Your task to perform on an android device: install app "Grab" Image 0: 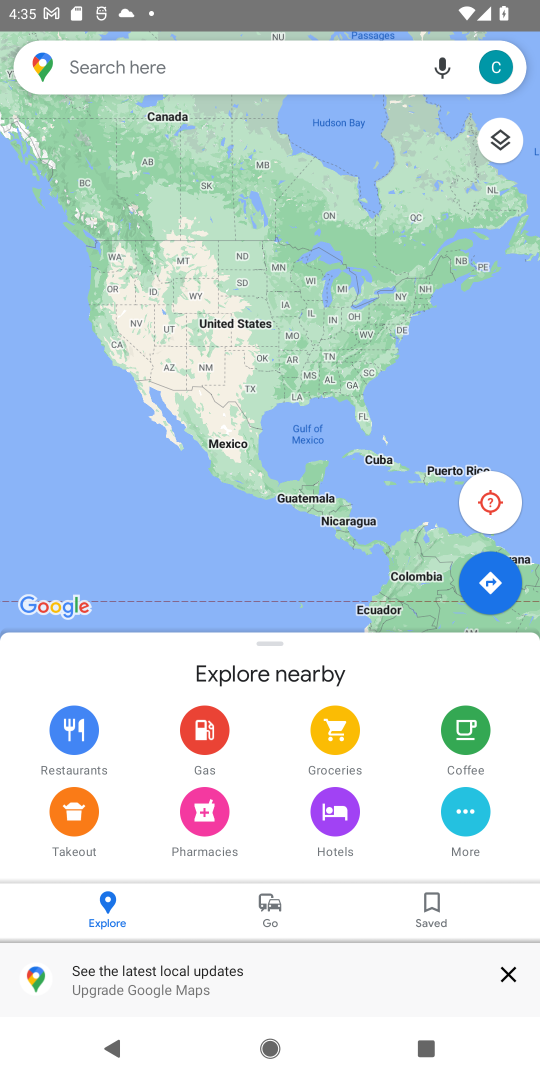
Step 0: press home button
Your task to perform on an android device: install app "Grab" Image 1: 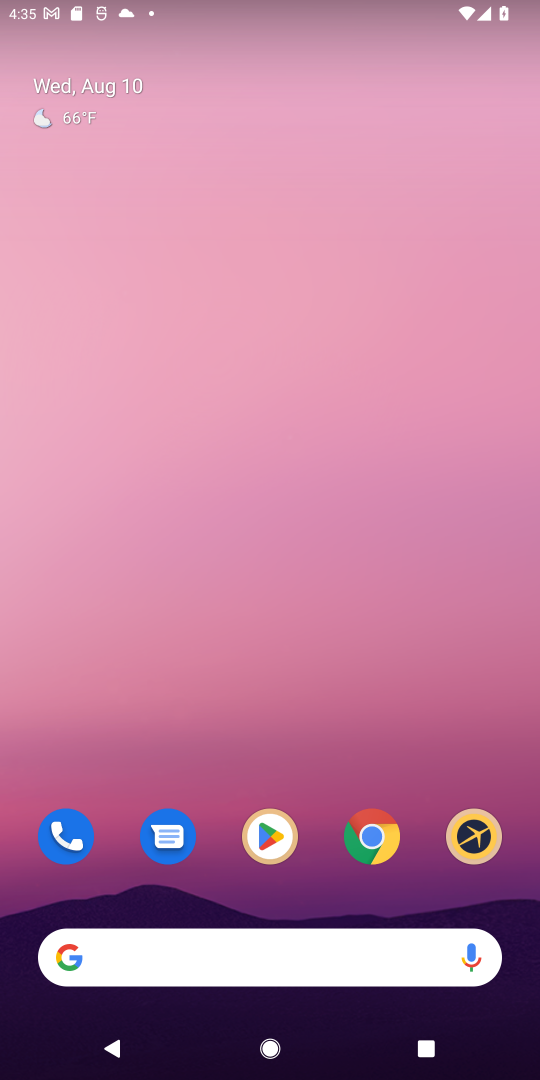
Step 1: drag from (190, 882) to (248, 237)
Your task to perform on an android device: install app "Grab" Image 2: 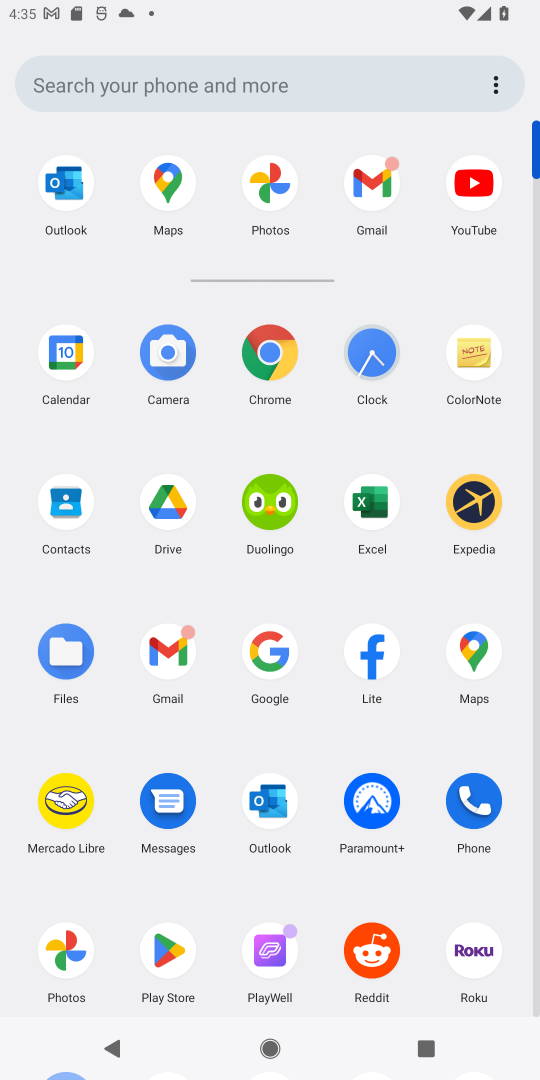
Step 2: click (155, 940)
Your task to perform on an android device: install app "Grab" Image 3: 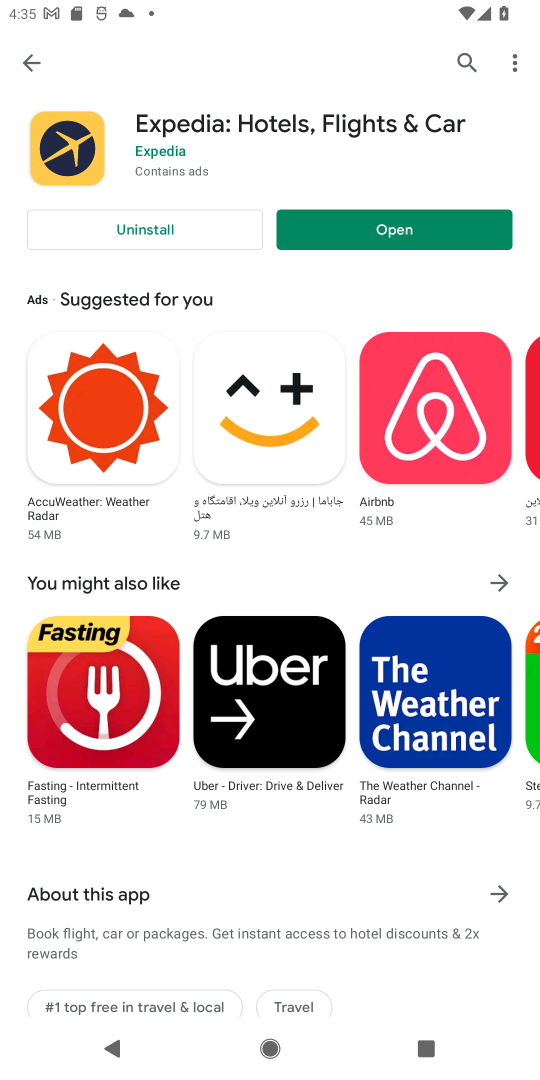
Step 3: click (36, 70)
Your task to perform on an android device: install app "Grab" Image 4: 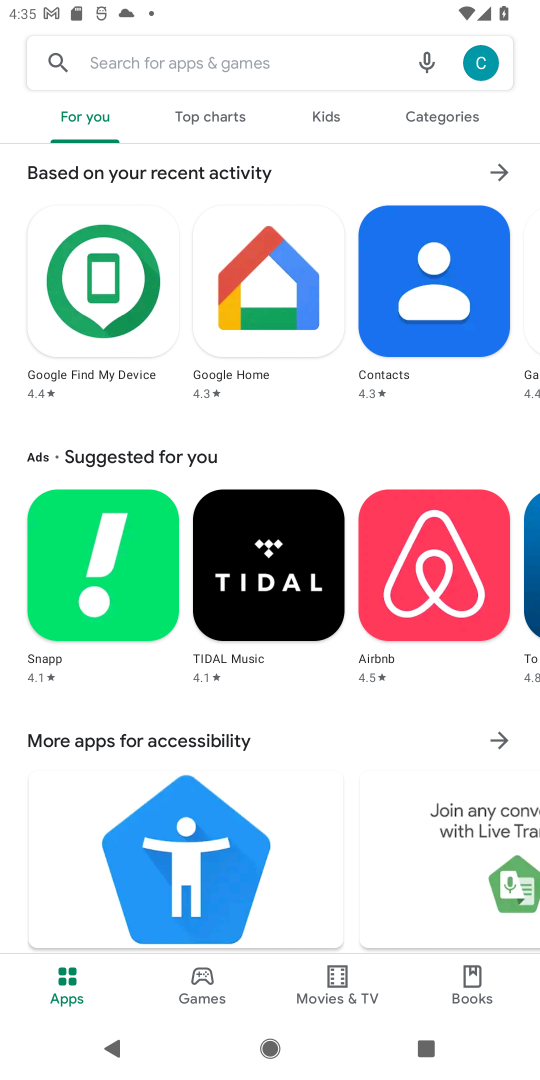
Step 4: click (218, 50)
Your task to perform on an android device: install app "Grab" Image 5: 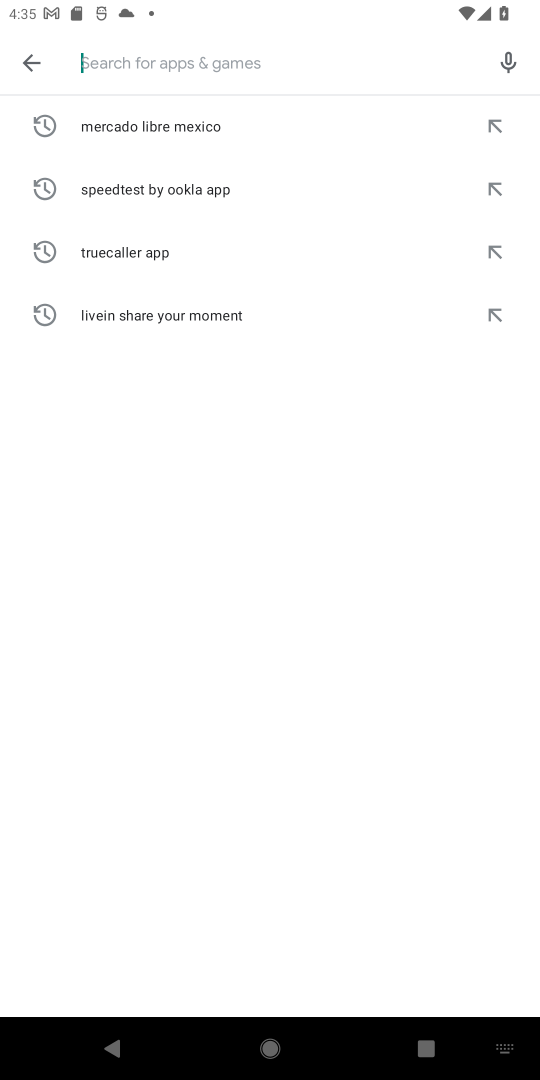
Step 5: type "grab "
Your task to perform on an android device: install app "Grab" Image 6: 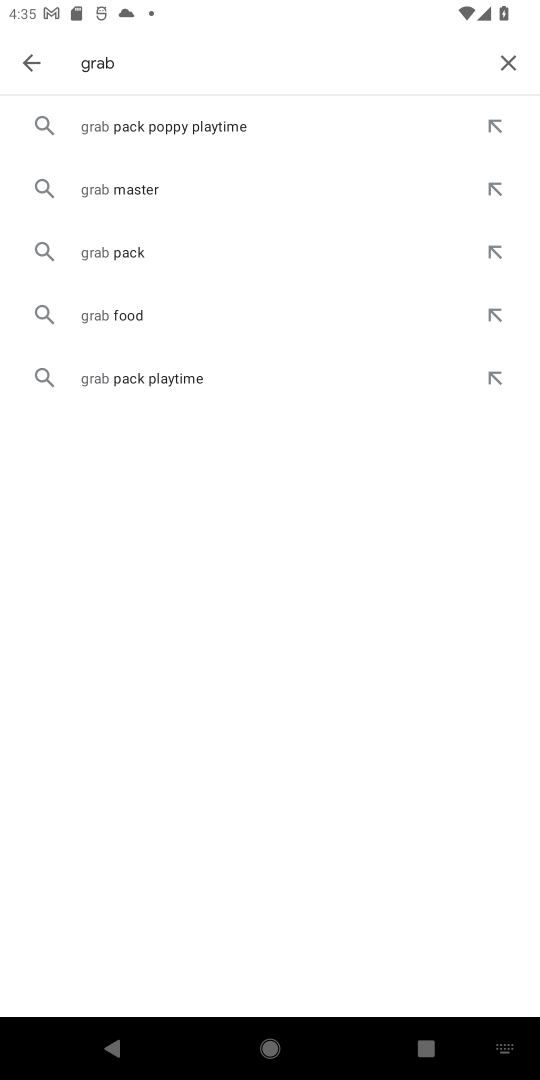
Step 6: click (163, 139)
Your task to perform on an android device: install app "Grab" Image 7: 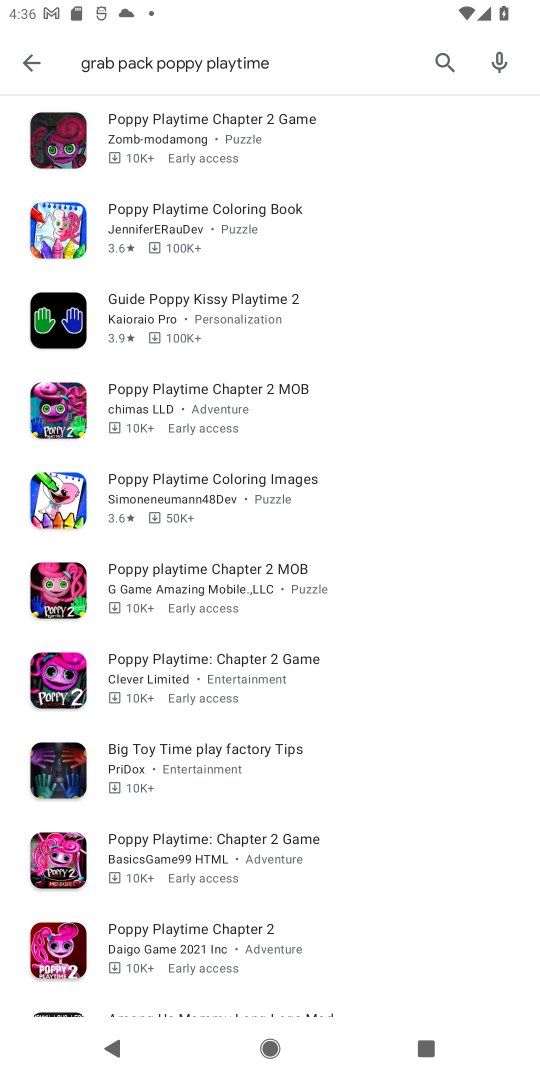
Step 7: click (13, 53)
Your task to perform on an android device: install app "Grab" Image 8: 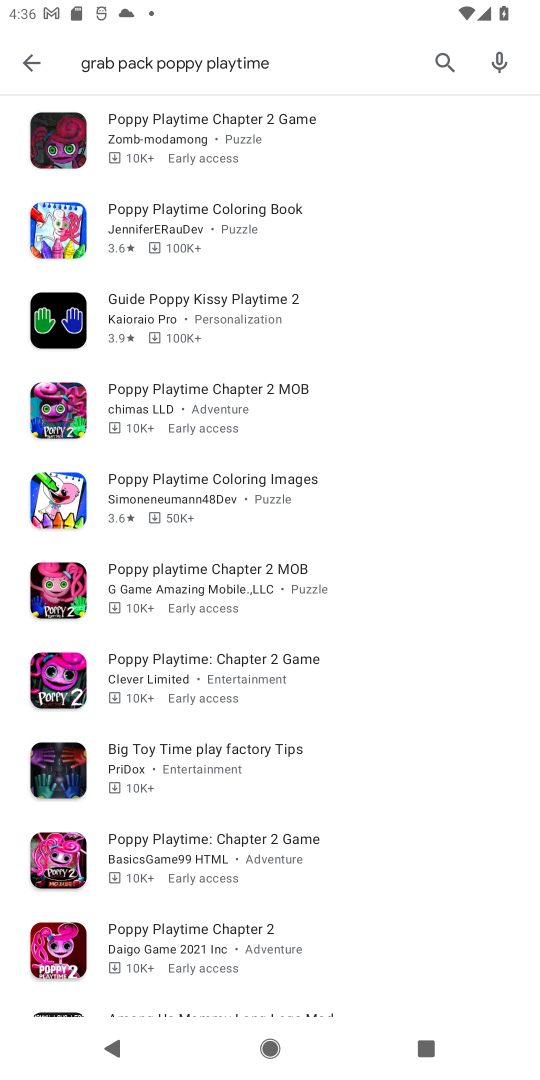
Step 8: click (15, 60)
Your task to perform on an android device: install app "Grab" Image 9: 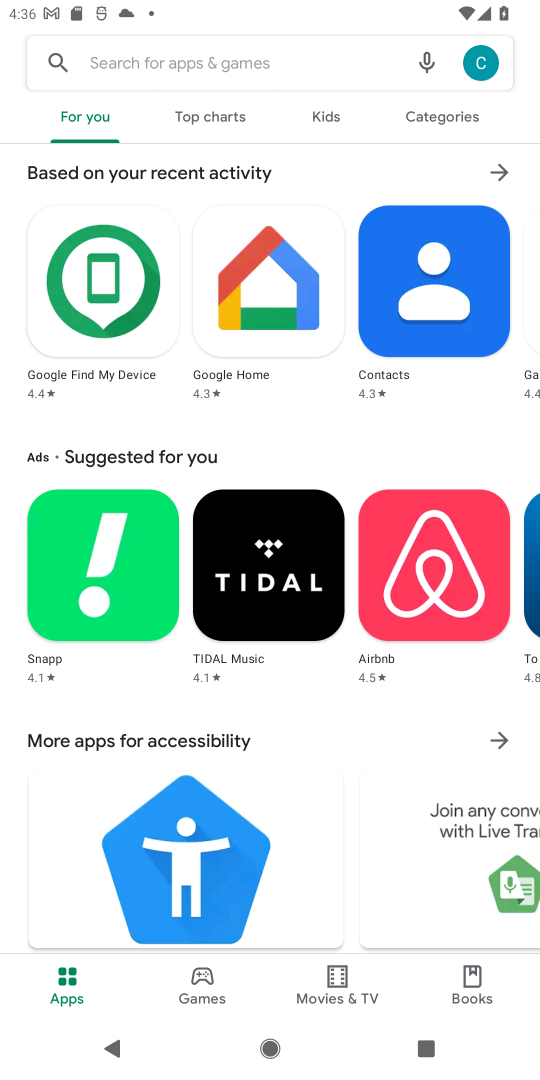
Step 9: click (360, 50)
Your task to perform on an android device: install app "Grab" Image 10: 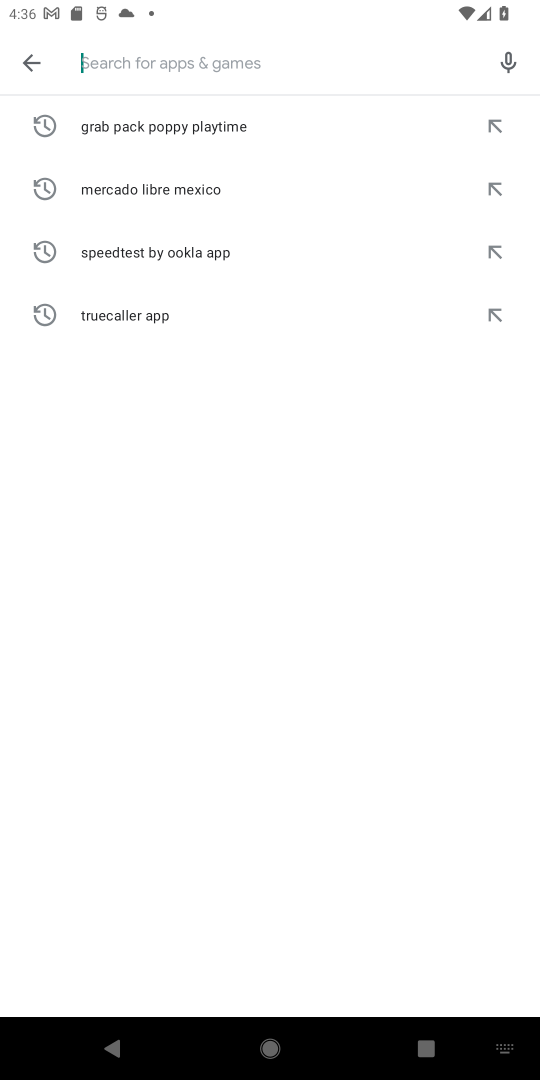
Step 10: type "Grab "
Your task to perform on an android device: install app "Grab" Image 11: 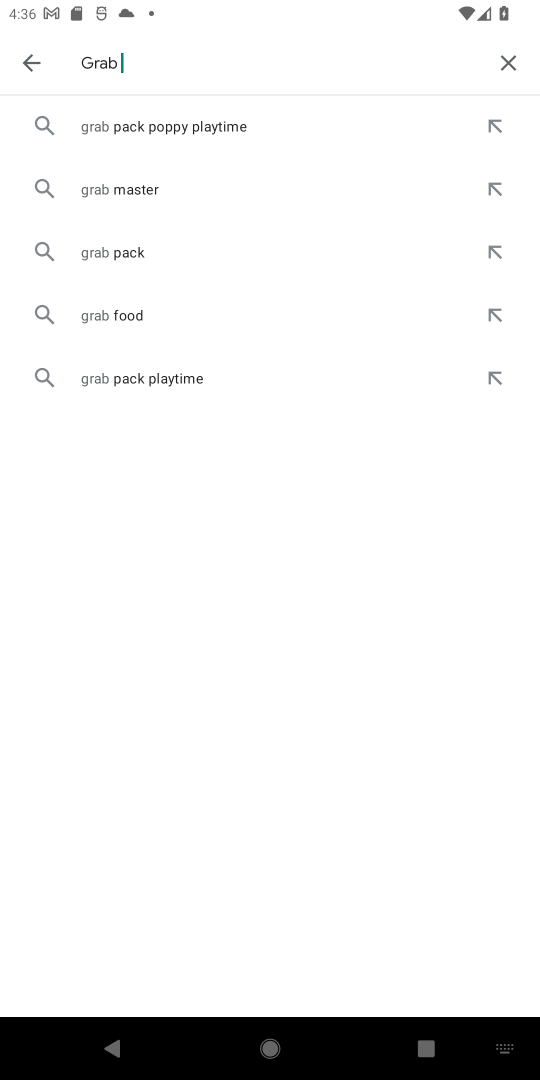
Step 11: click (199, 152)
Your task to perform on an android device: install app "Grab" Image 12: 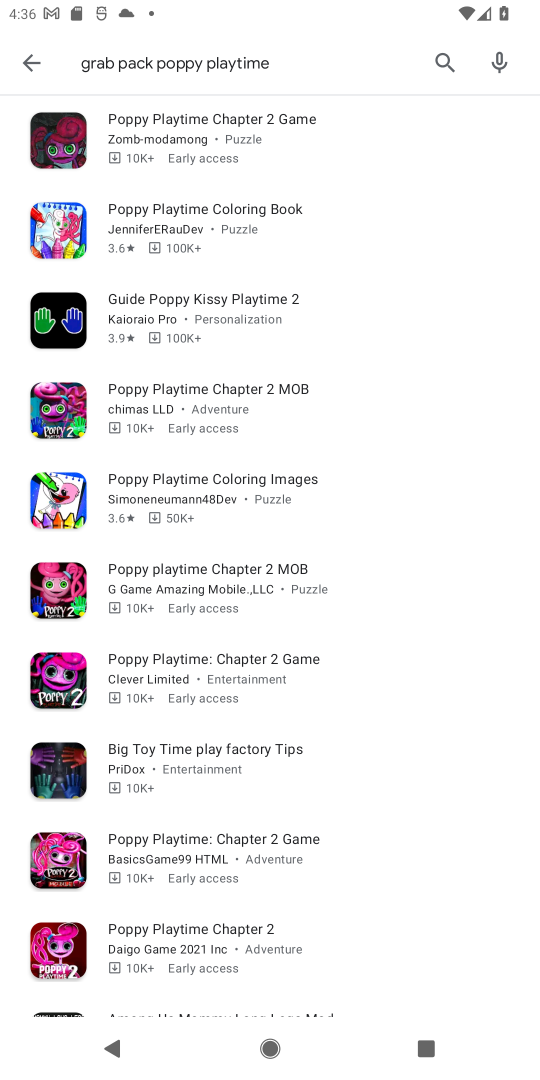
Step 12: task complete